Your task to perform on an android device: Open calendar and show me the third week of next month Image 0: 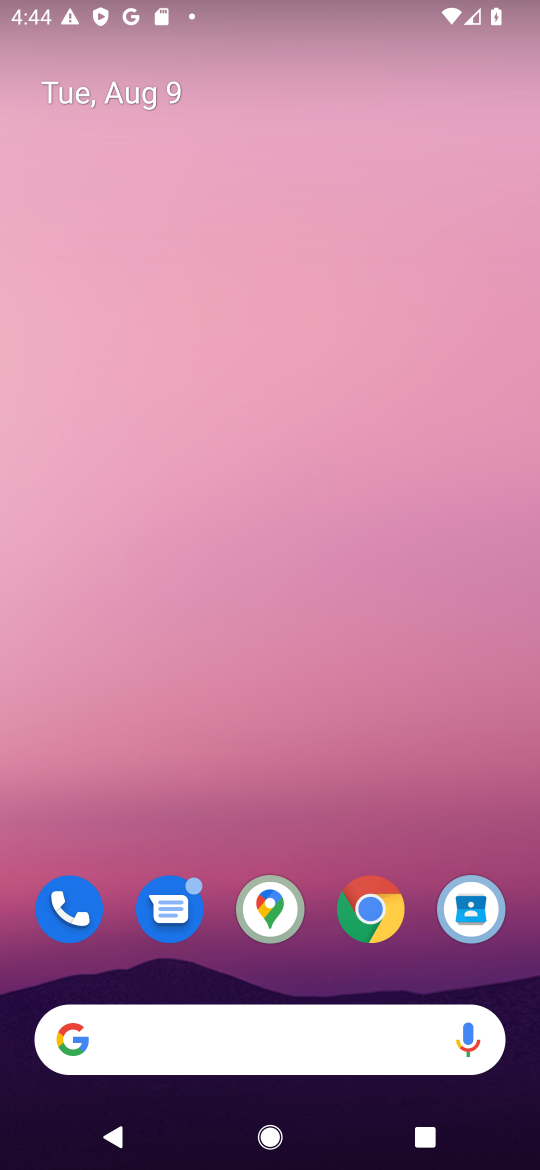
Step 0: drag from (318, 866) to (213, 0)
Your task to perform on an android device: Open calendar and show me the third week of next month Image 1: 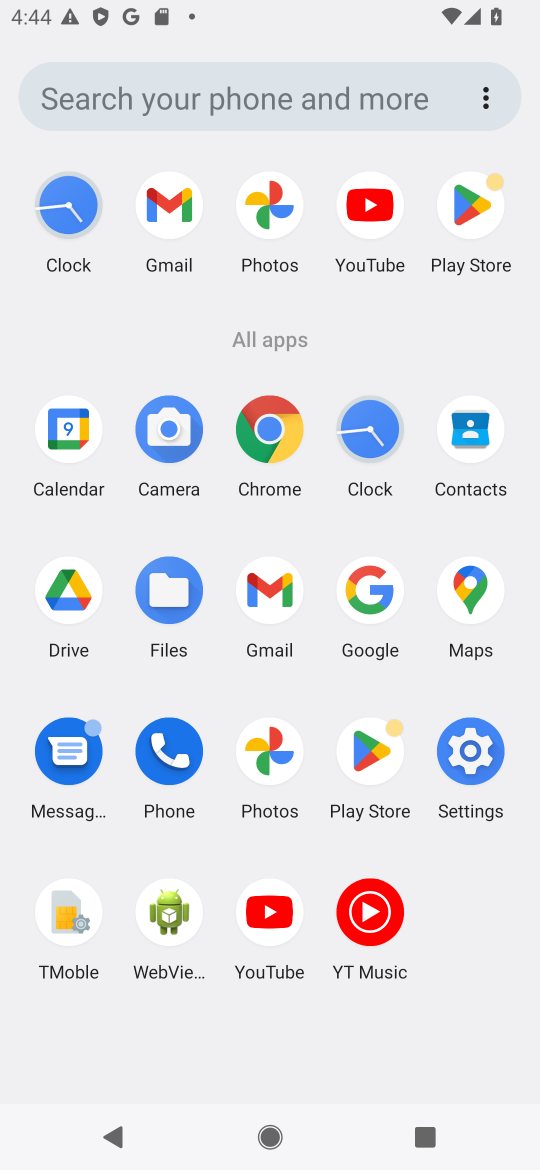
Step 1: click (74, 427)
Your task to perform on an android device: Open calendar and show me the third week of next month Image 2: 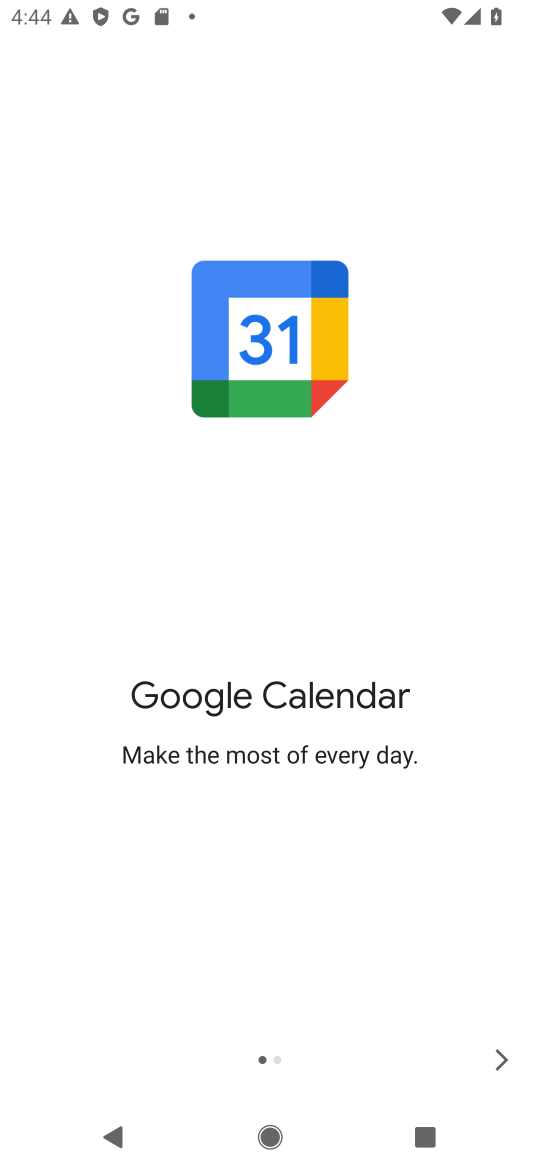
Step 2: click (496, 1056)
Your task to perform on an android device: Open calendar and show me the third week of next month Image 3: 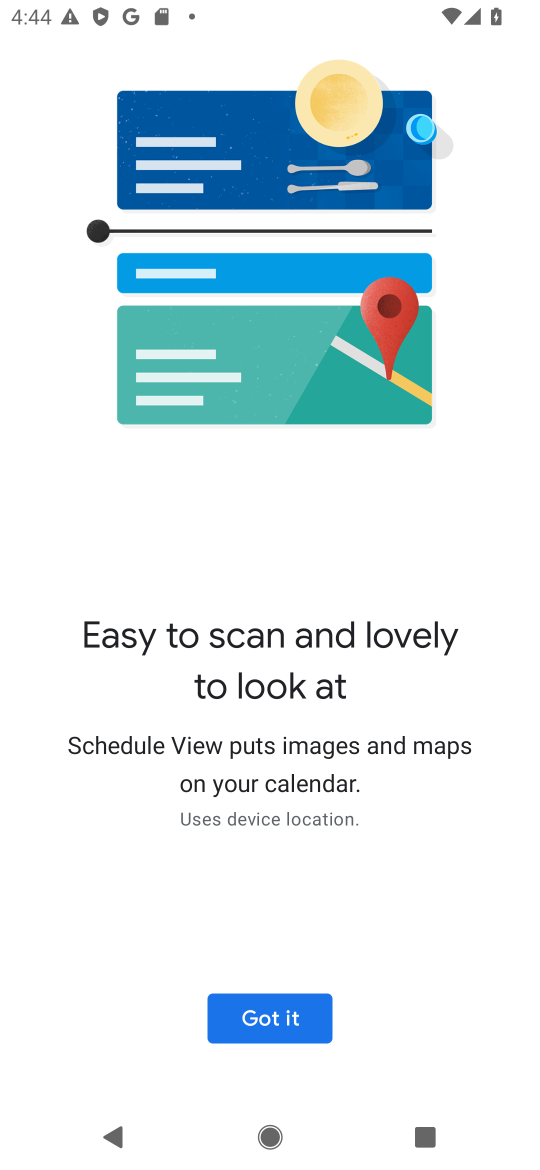
Step 3: click (301, 1022)
Your task to perform on an android device: Open calendar and show me the third week of next month Image 4: 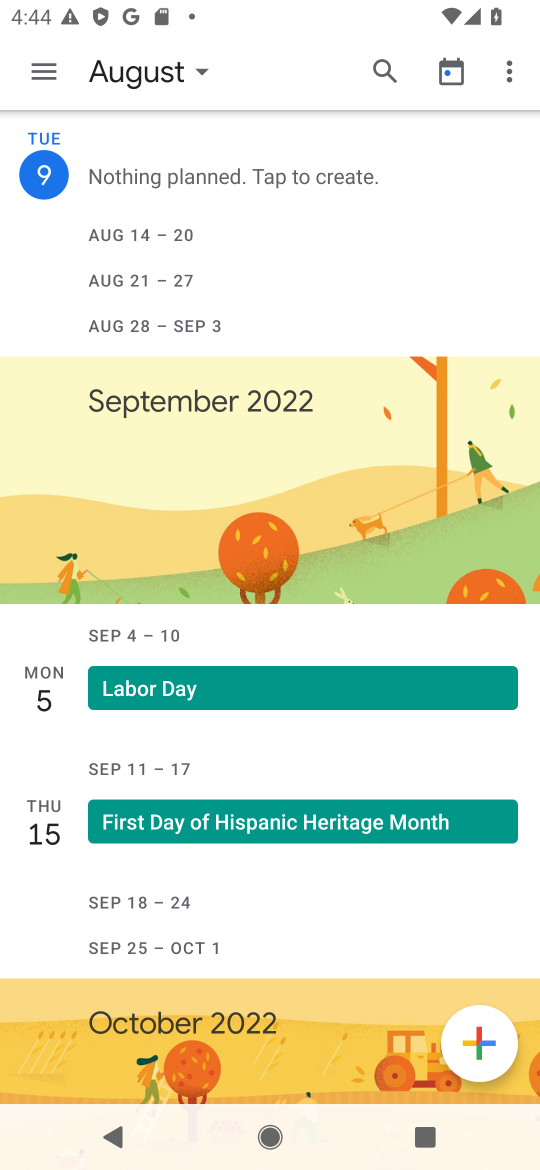
Step 4: click (54, 77)
Your task to perform on an android device: Open calendar and show me the third week of next month Image 5: 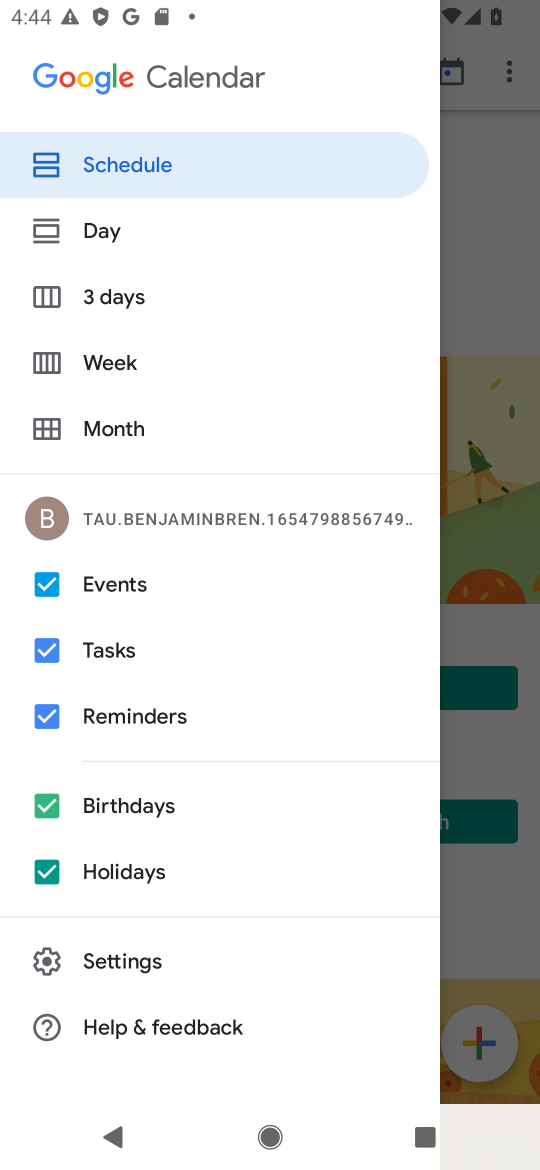
Step 5: click (152, 356)
Your task to perform on an android device: Open calendar and show me the third week of next month Image 6: 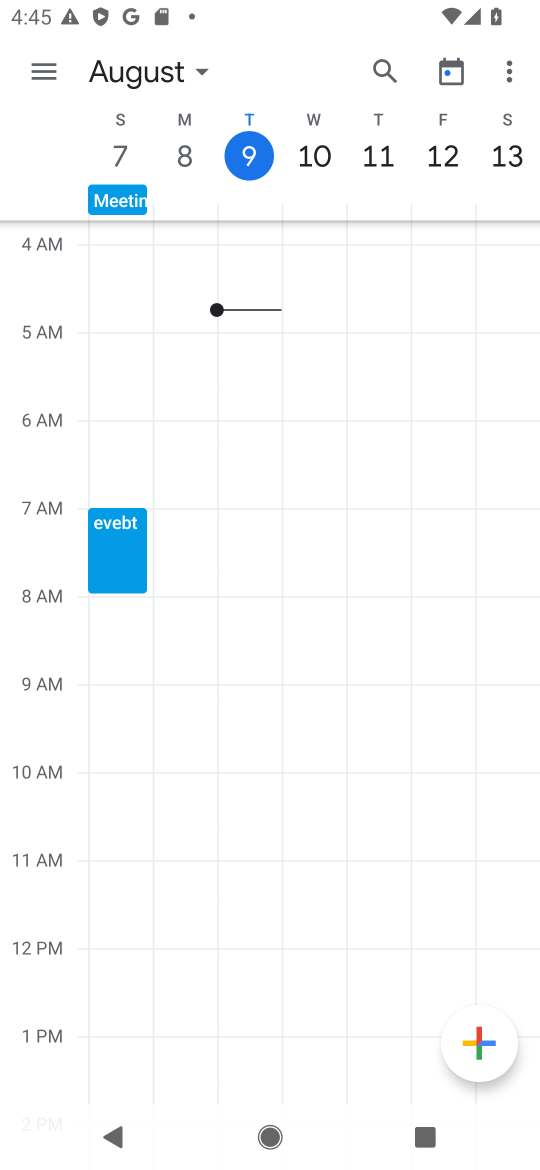
Step 6: click (197, 70)
Your task to perform on an android device: Open calendar and show me the third week of next month Image 7: 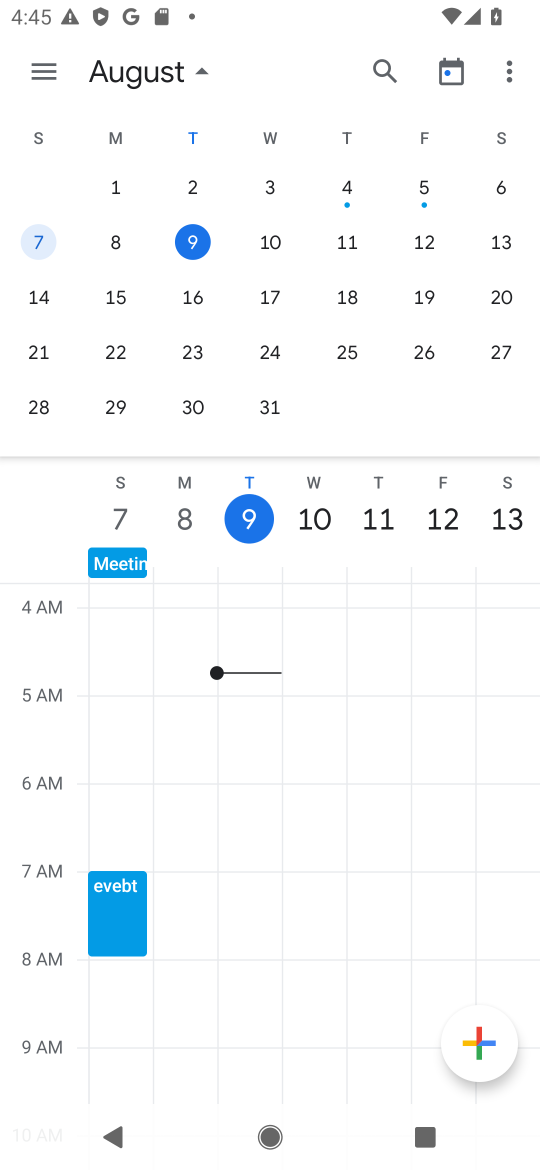
Step 7: drag from (446, 333) to (29, 330)
Your task to perform on an android device: Open calendar and show me the third week of next month Image 8: 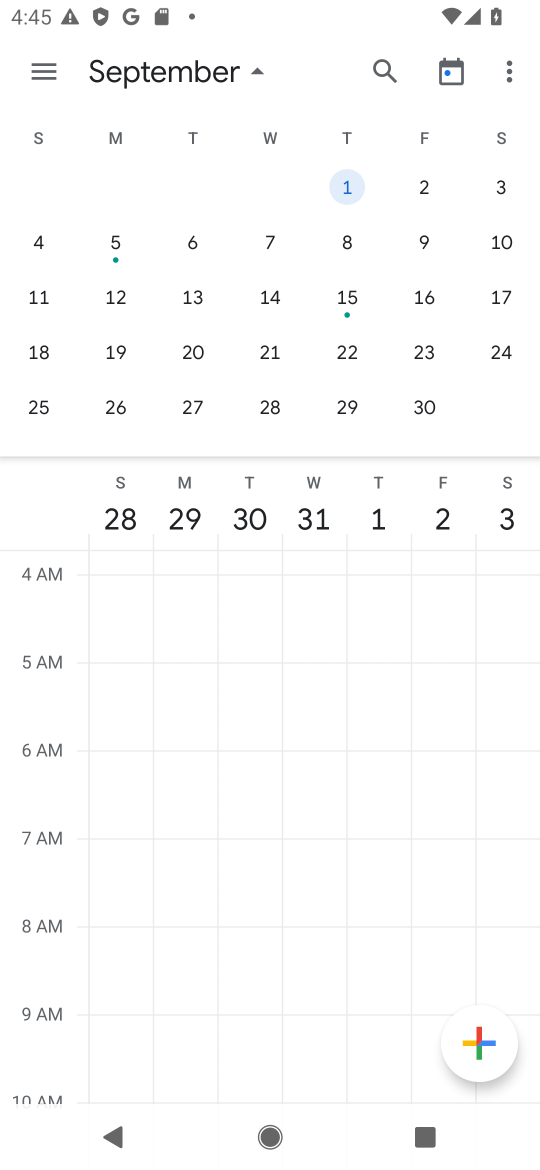
Step 8: click (262, 356)
Your task to perform on an android device: Open calendar and show me the third week of next month Image 9: 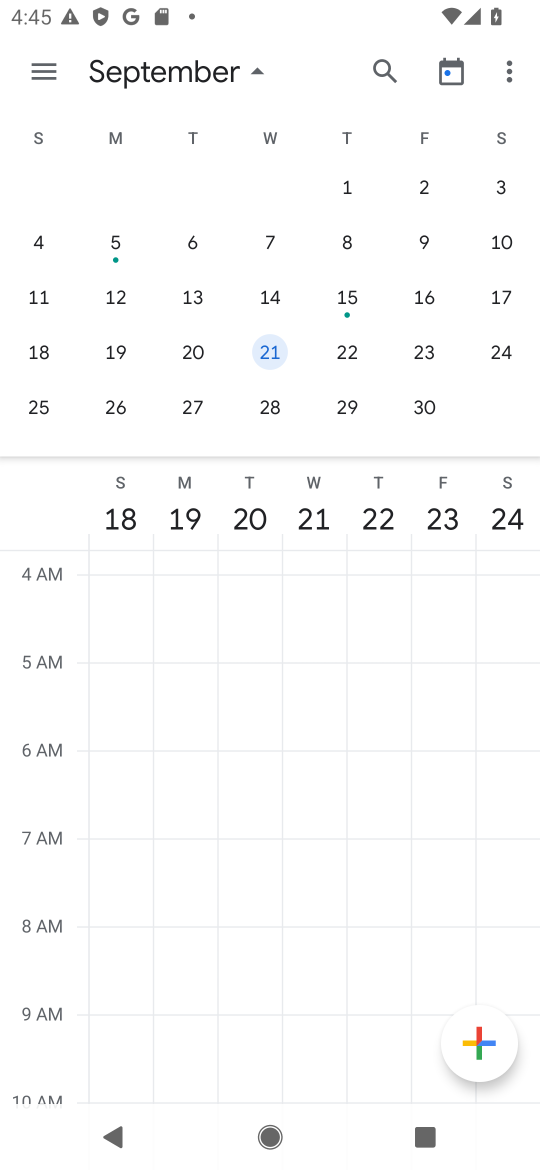
Step 9: task complete